Your task to perform on an android device: What's the weather going to be tomorrow? Image 0: 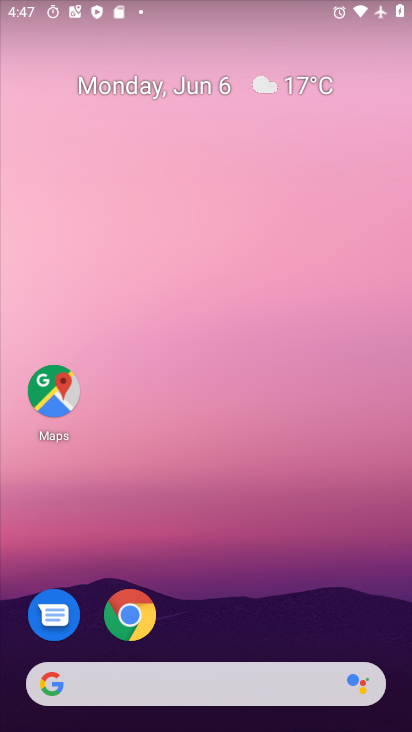
Step 0: drag from (232, 474) to (219, 17)
Your task to perform on an android device: What's the weather going to be tomorrow? Image 1: 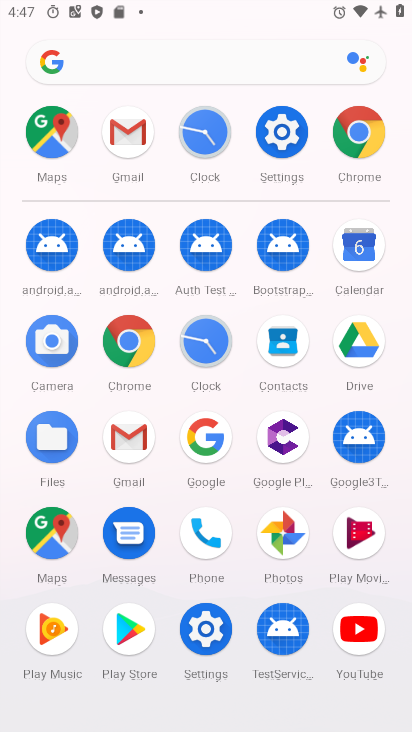
Step 1: drag from (12, 553) to (12, 252)
Your task to perform on an android device: What's the weather going to be tomorrow? Image 2: 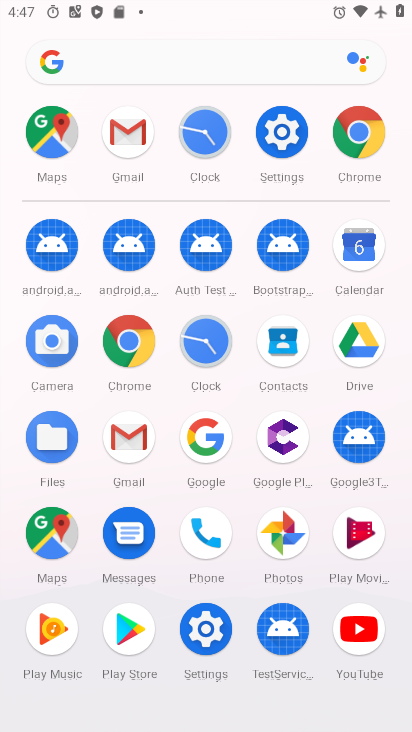
Step 2: click (358, 244)
Your task to perform on an android device: What's the weather going to be tomorrow? Image 3: 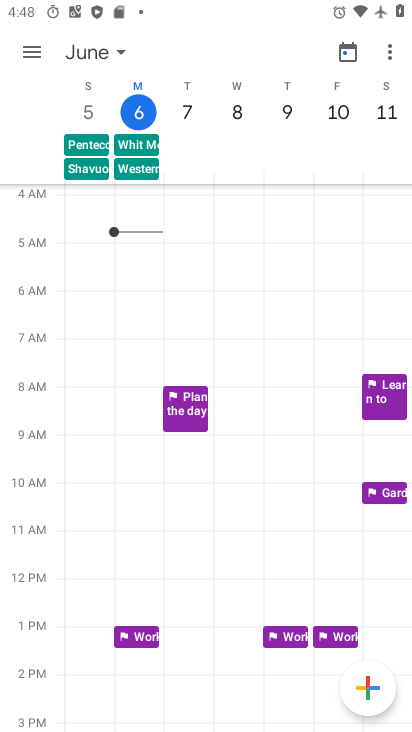
Step 3: click (184, 100)
Your task to perform on an android device: What's the weather going to be tomorrow? Image 4: 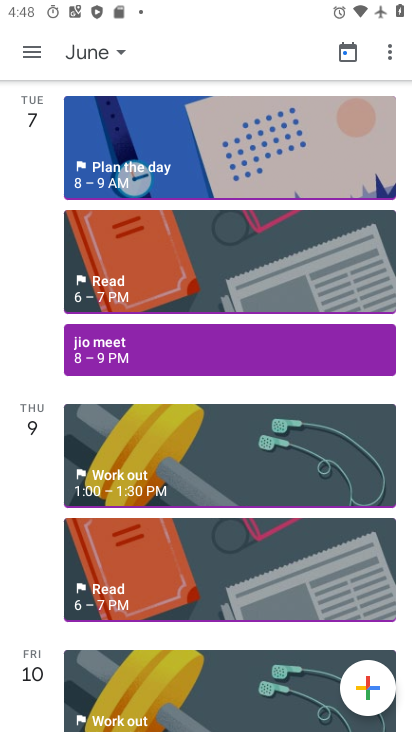
Step 4: task complete